Your task to perform on an android device: open chrome and create a bookmark for the current page Image 0: 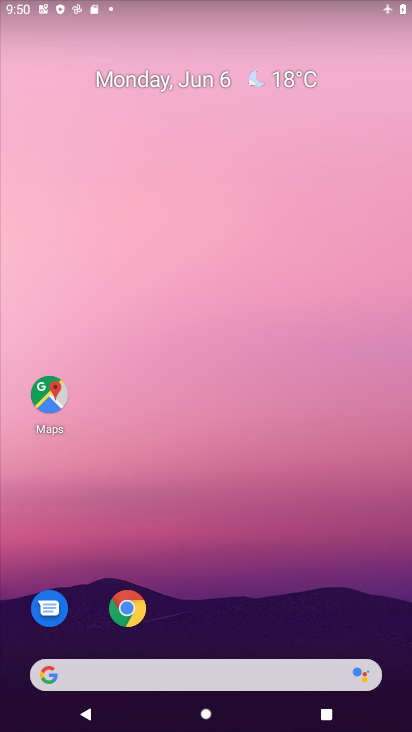
Step 0: click (129, 609)
Your task to perform on an android device: open chrome and create a bookmark for the current page Image 1: 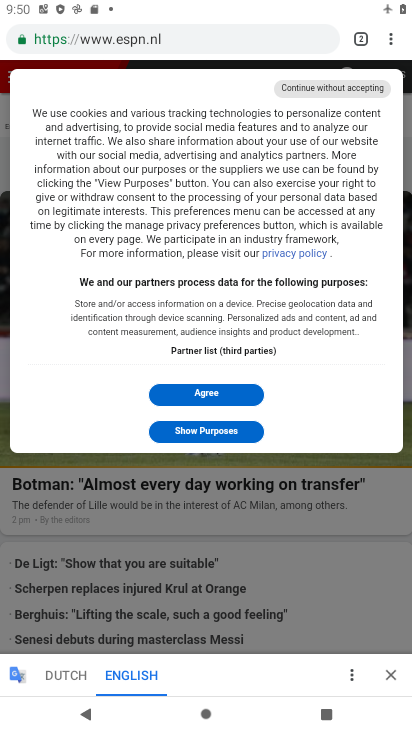
Step 1: click (392, 42)
Your task to perform on an android device: open chrome and create a bookmark for the current page Image 2: 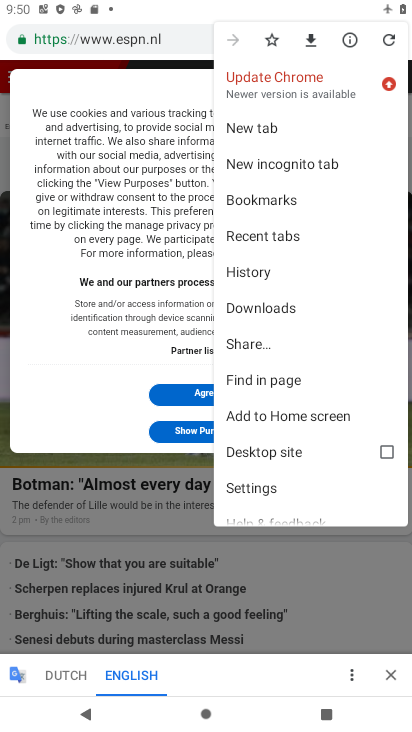
Step 2: click (273, 44)
Your task to perform on an android device: open chrome and create a bookmark for the current page Image 3: 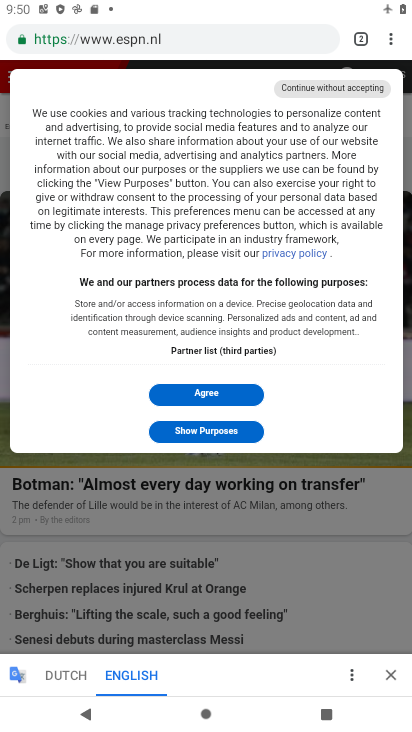
Step 3: task complete